Your task to perform on an android device: Search for the best gaming monitor on Best Buy Image 0: 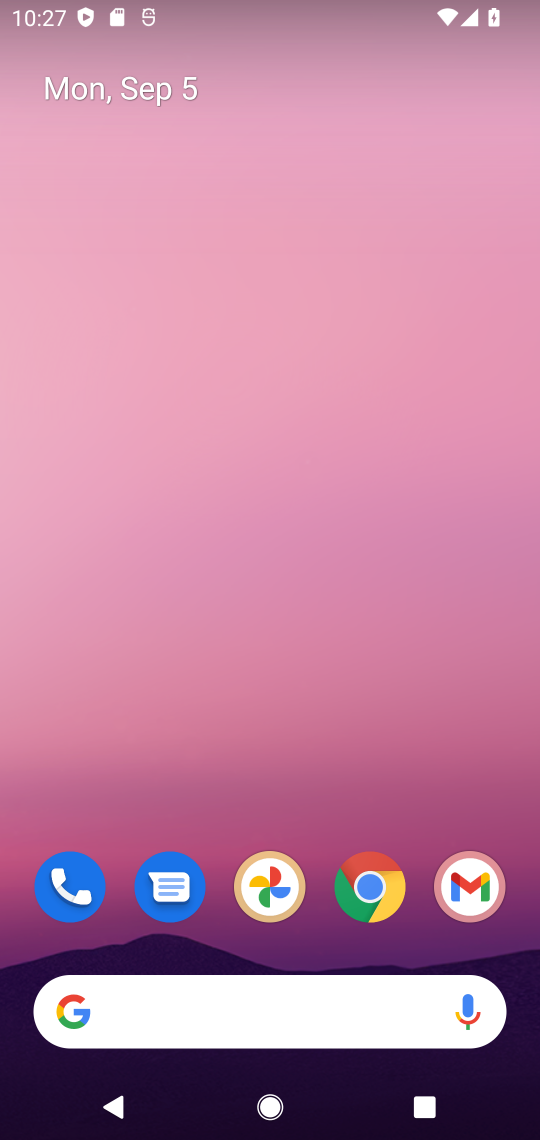
Step 0: click (372, 876)
Your task to perform on an android device: Search for the best gaming monitor on Best Buy Image 1: 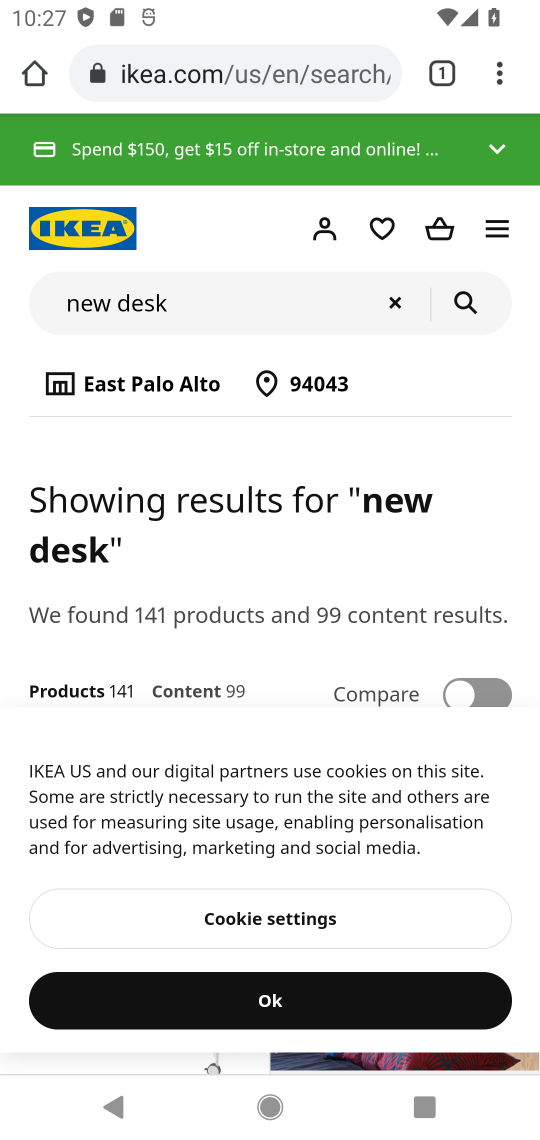
Step 1: click (349, 63)
Your task to perform on an android device: Search for the best gaming monitor on Best Buy Image 2: 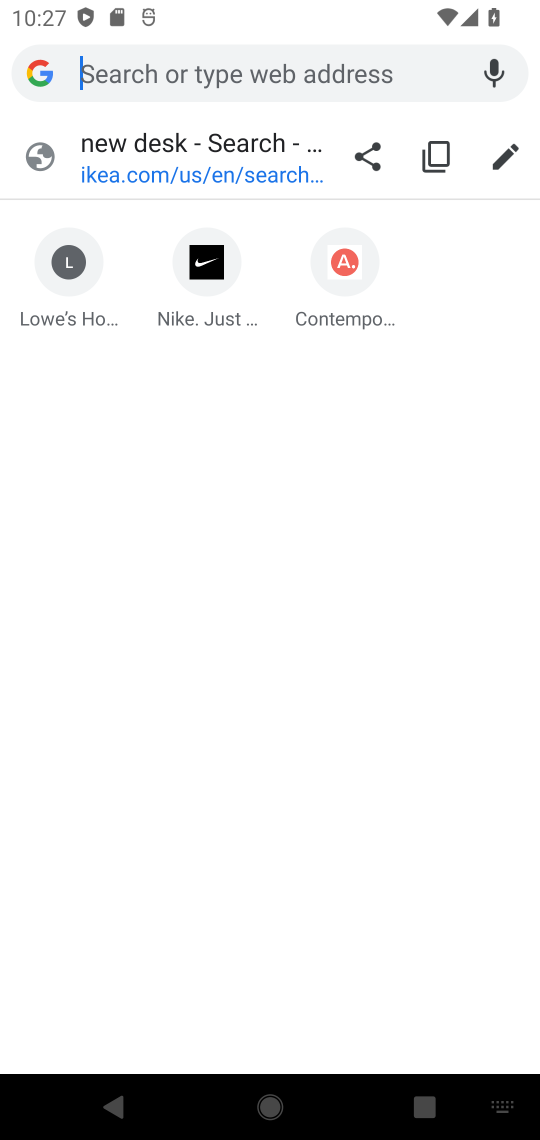
Step 2: type "best buy"
Your task to perform on an android device: Search for the best gaming monitor on Best Buy Image 3: 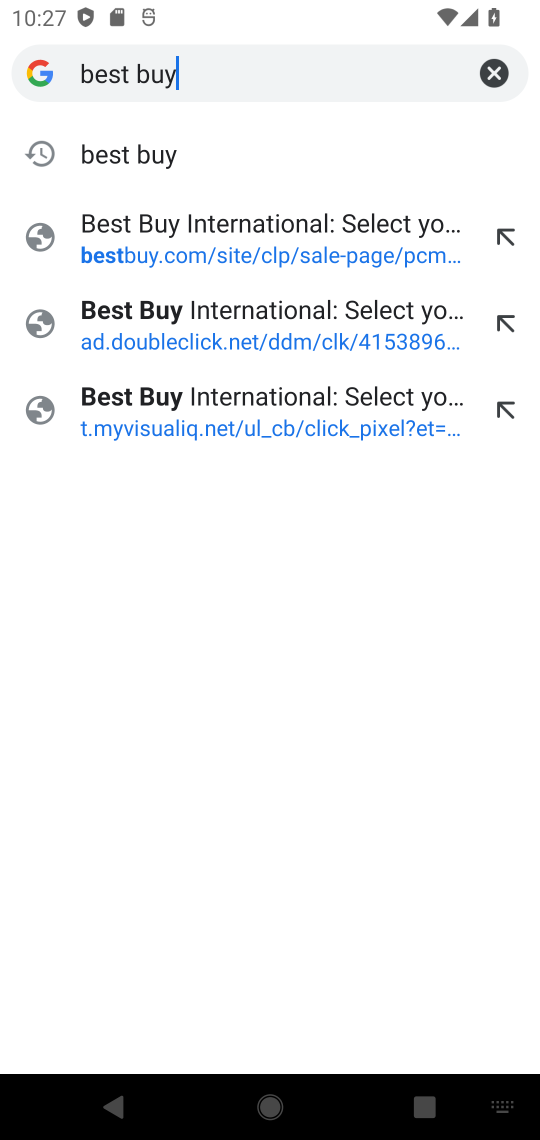
Step 3: click (143, 164)
Your task to perform on an android device: Search for the best gaming monitor on Best Buy Image 4: 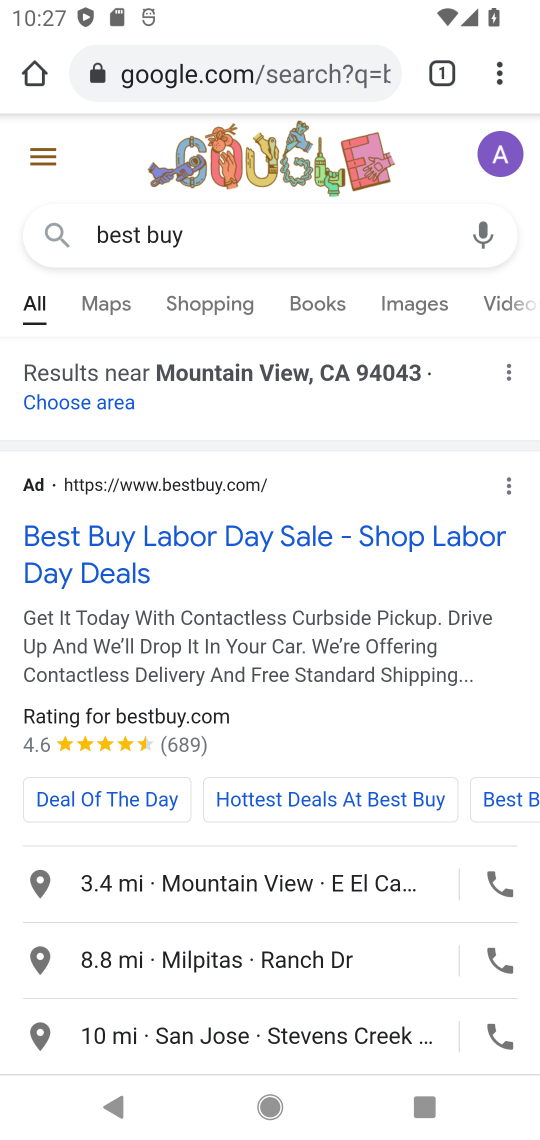
Step 4: click (228, 545)
Your task to perform on an android device: Search for the best gaming monitor on Best Buy Image 5: 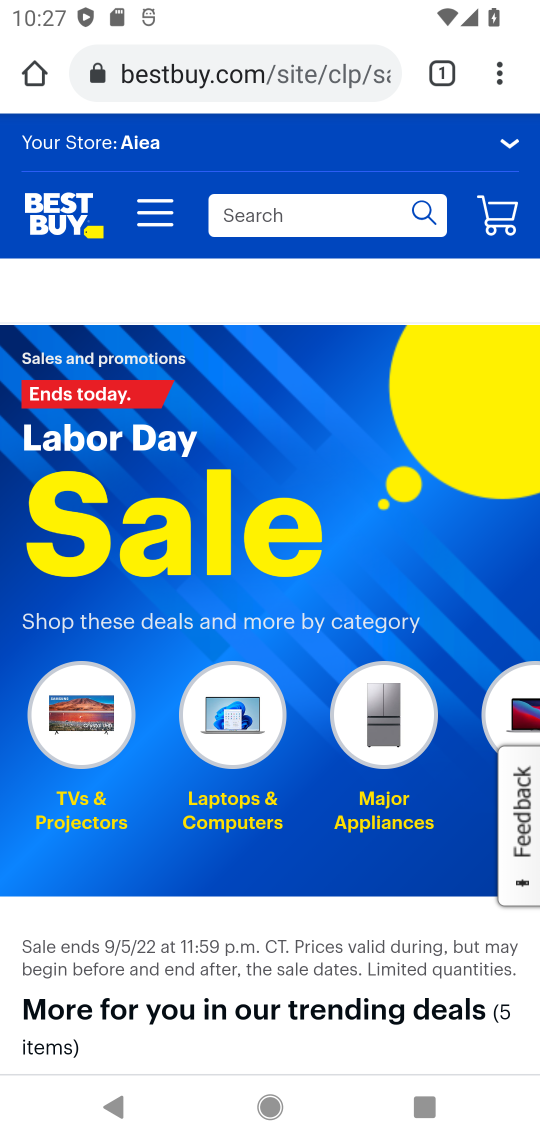
Step 5: click (288, 212)
Your task to perform on an android device: Search for the best gaming monitor on Best Buy Image 6: 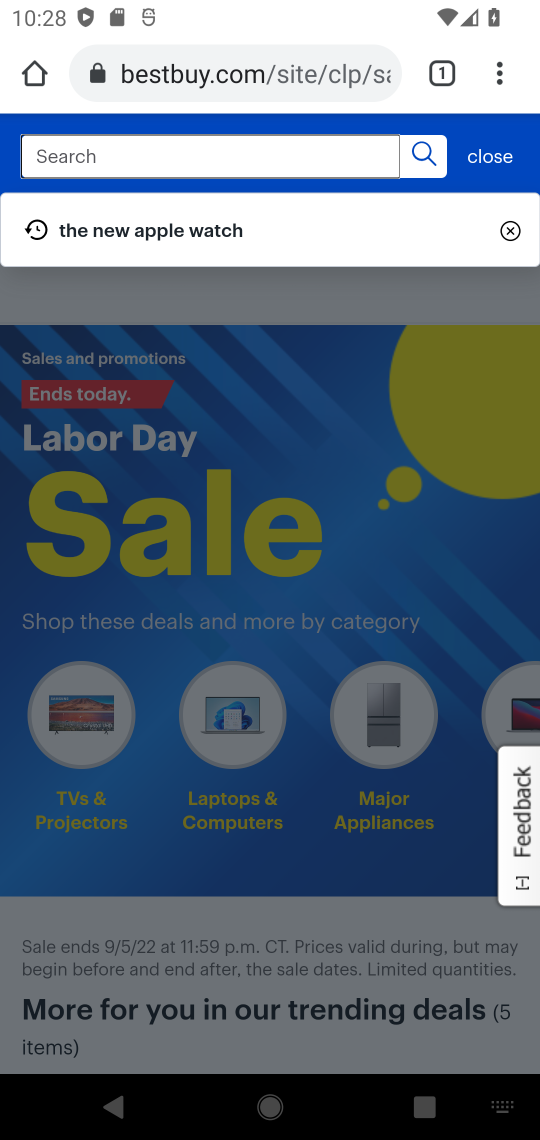
Step 6: type "the best gaming monitor"
Your task to perform on an android device: Search for the best gaming monitor on Best Buy Image 7: 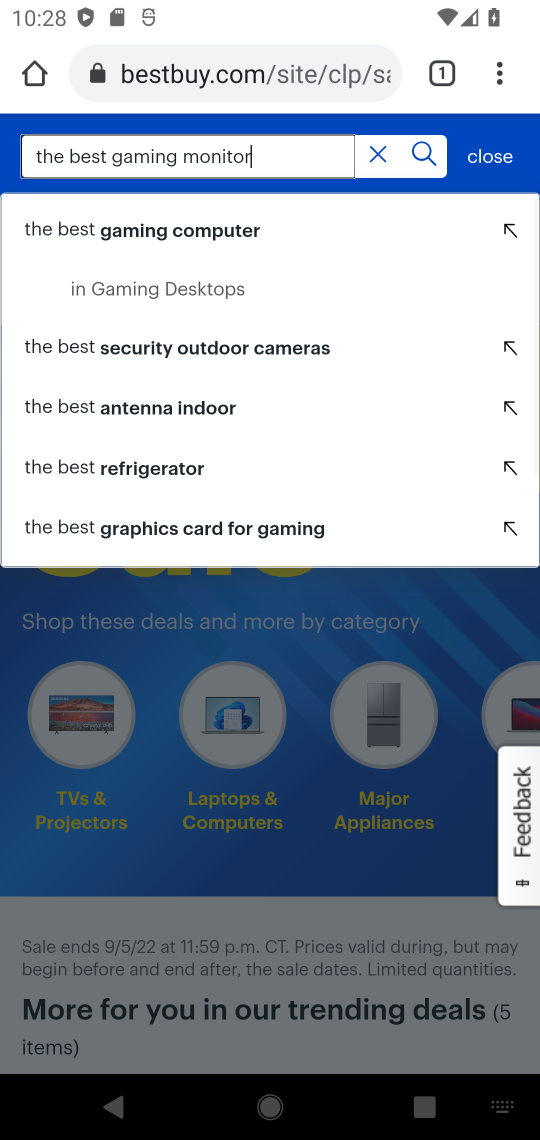
Step 7: click (411, 147)
Your task to perform on an android device: Search for the best gaming monitor on Best Buy Image 8: 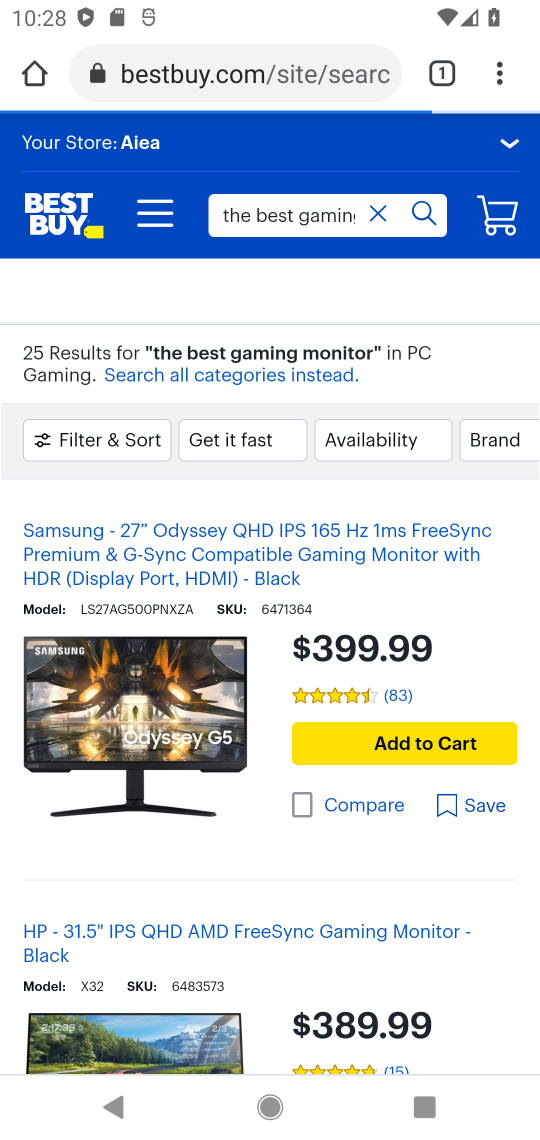
Step 8: task complete